Your task to perform on an android device: turn on showing notifications on the lock screen Image 0: 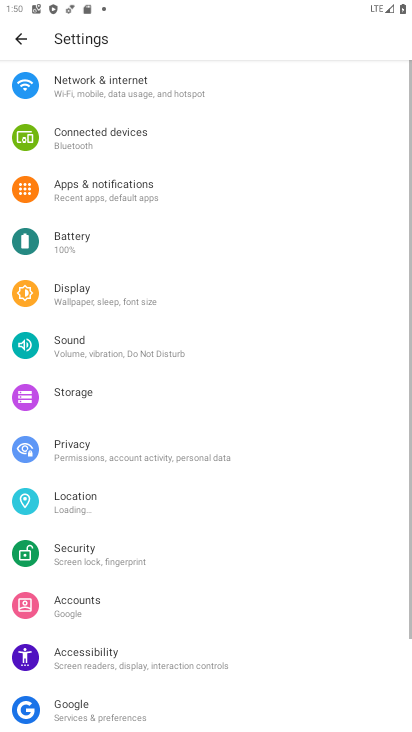
Step 0: drag from (318, 692) to (362, 95)
Your task to perform on an android device: turn on showing notifications on the lock screen Image 1: 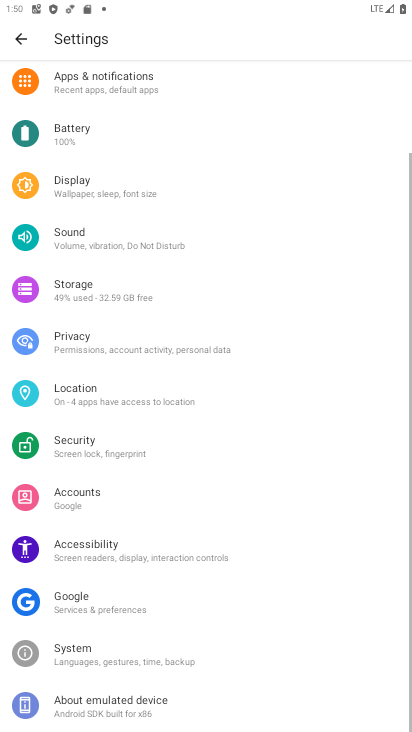
Step 1: press home button
Your task to perform on an android device: turn on showing notifications on the lock screen Image 2: 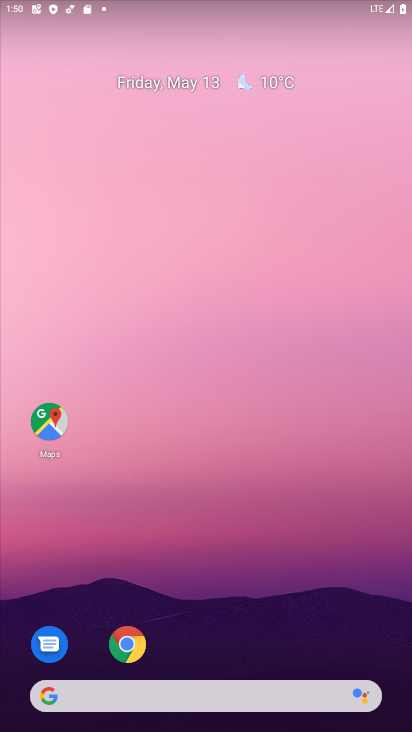
Step 2: drag from (283, 648) to (349, 57)
Your task to perform on an android device: turn on showing notifications on the lock screen Image 3: 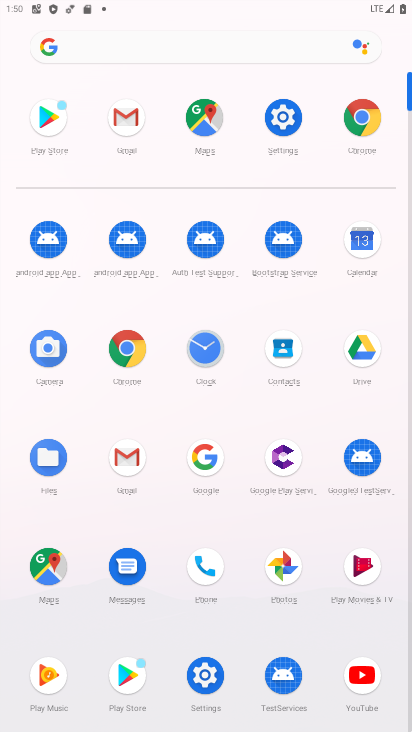
Step 3: click (284, 129)
Your task to perform on an android device: turn on showing notifications on the lock screen Image 4: 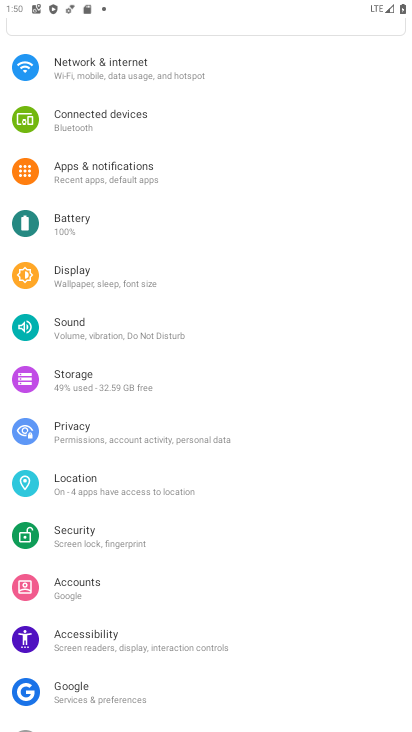
Step 4: click (104, 169)
Your task to perform on an android device: turn on showing notifications on the lock screen Image 5: 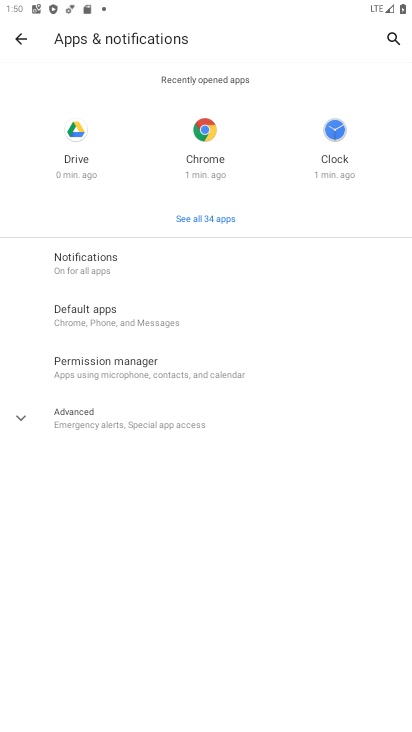
Step 5: click (97, 261)
Your task to perform on an android device: turn on showing notifications on the lock screen Image 6: 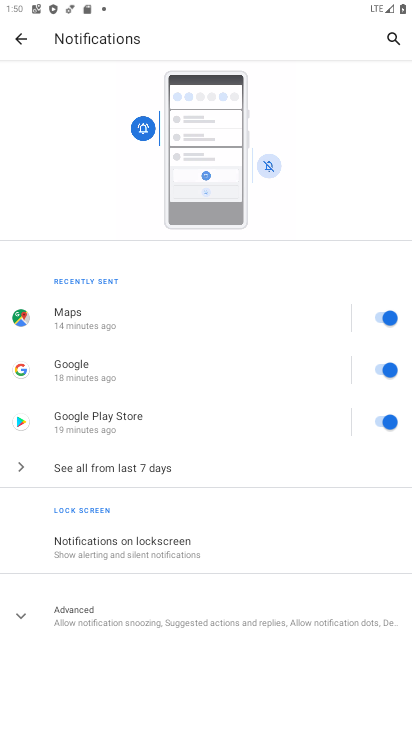
Step 6: click (188, 544)
Your task to perform on an android device: turn on showing notifications on the lock screen Image 7: 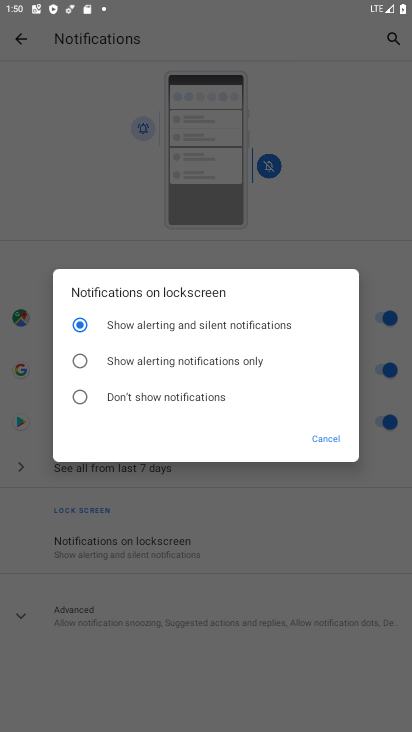
Step 7: task complete